Your task to perform on an android device: Go to Maps Image 0: 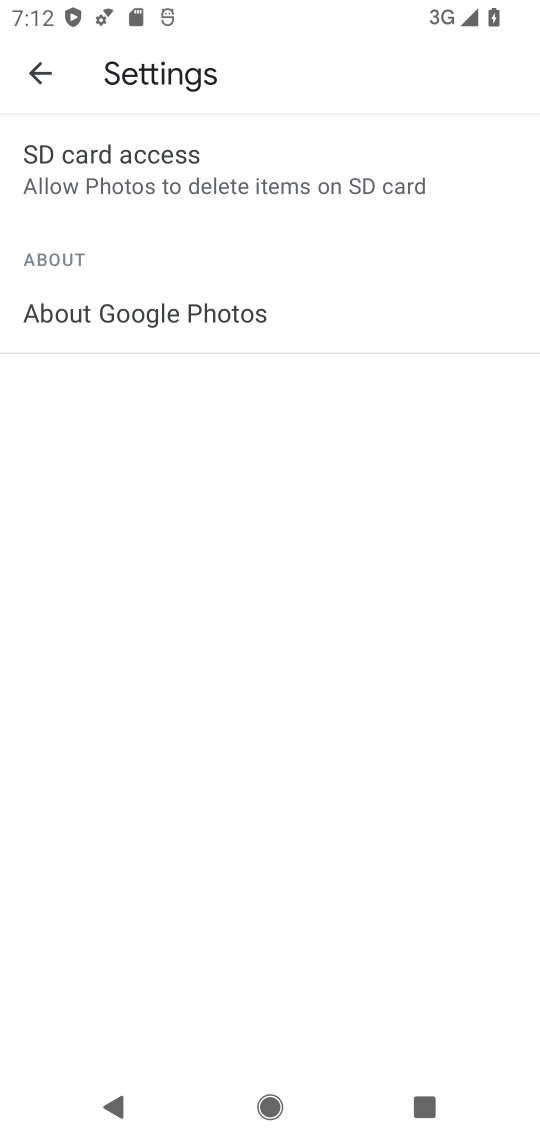
Step 0: press home button
Your task to perform on an android device: Go to Maps Image 1: 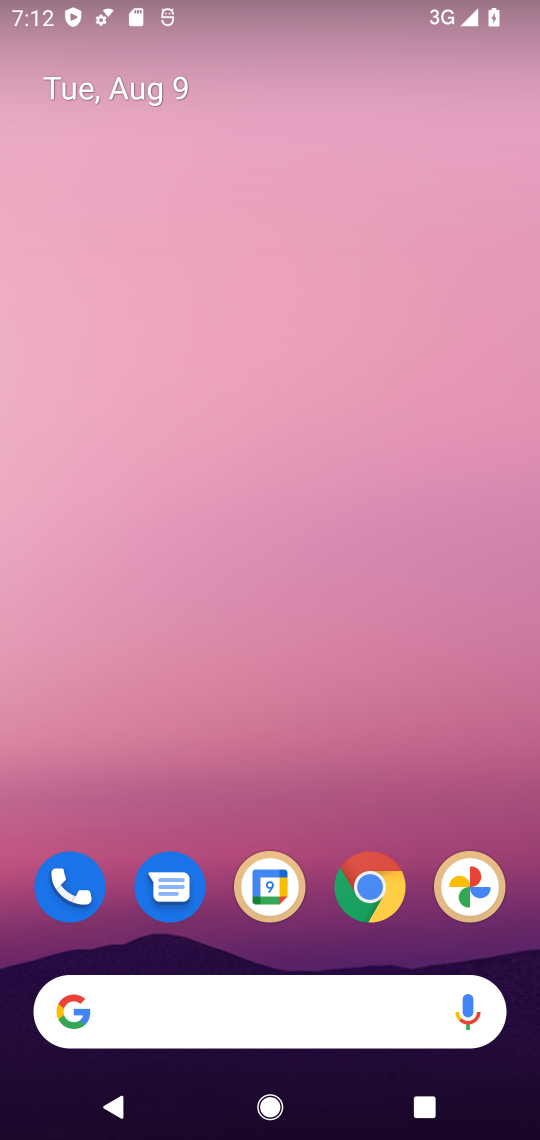
Step 1: drag from (270, 788) to (363, 0)
Your task to perform on an android device: Go to Maps Image 2: 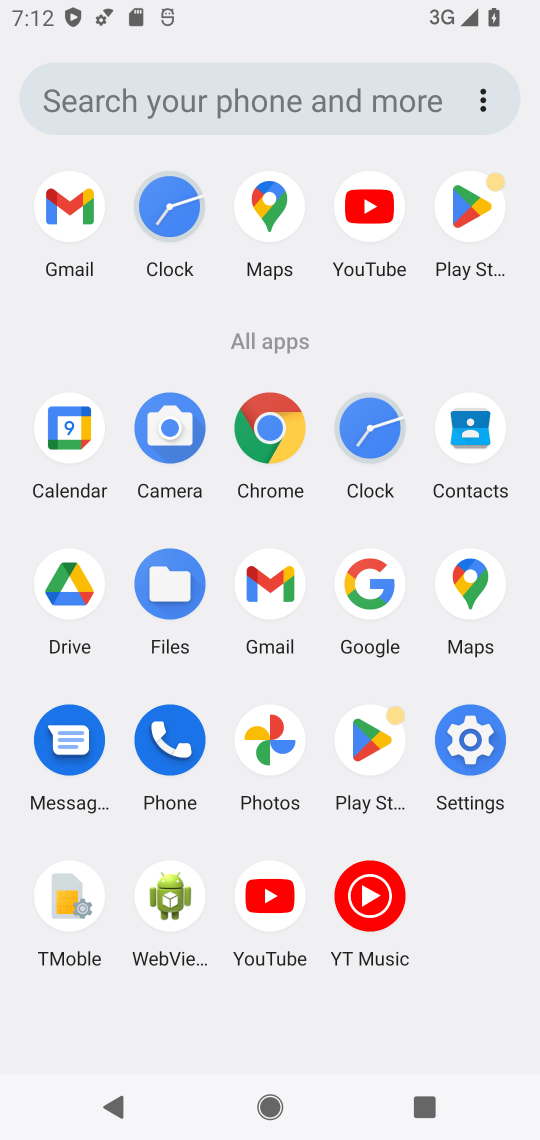
Step 2: click (476, 575)
Your task to perform on an android device: Go to Maps Image 3: 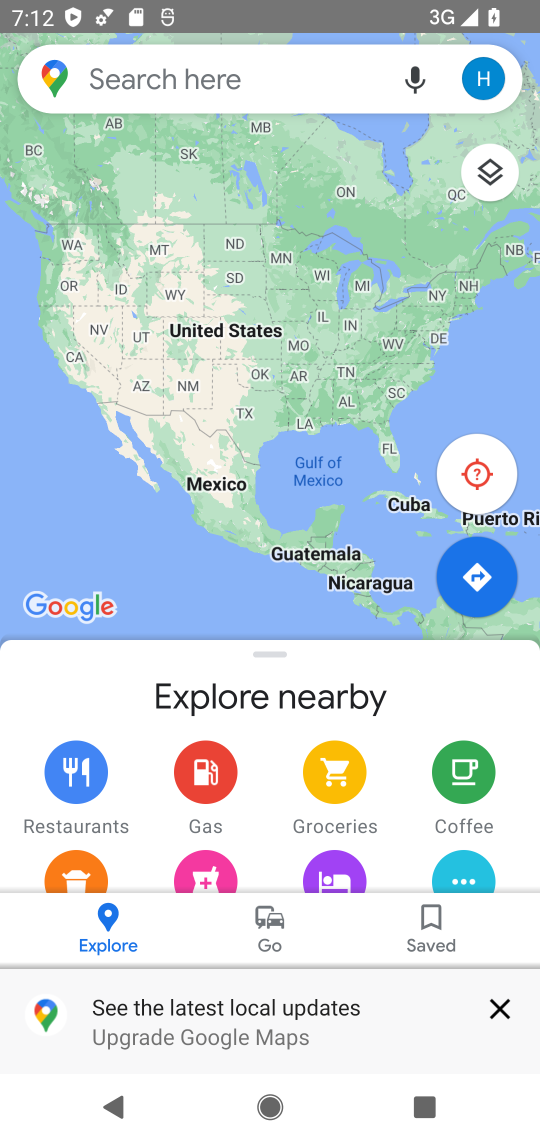
Step 3: task complete